Your task to perform on an android device: What's on my calendar tomorrow? Image 0: 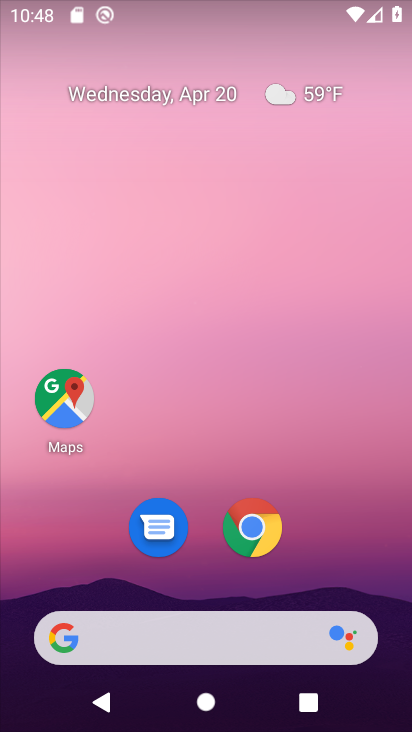
Step 0: drag from (370, 574) to (358, 133)
Your task to perform on an android device: What's on my calendar tomorrow? Image 1: 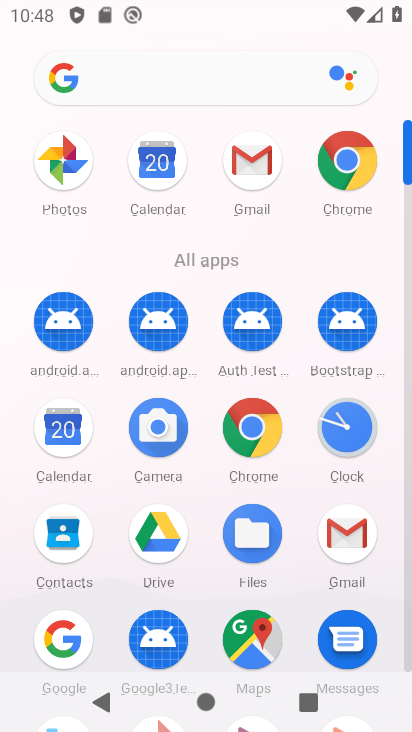
Step 1: drag from (286, 584) to (305, 259)
Your task to perform on an android device: What's on my calendar tomorrow? Image 2: 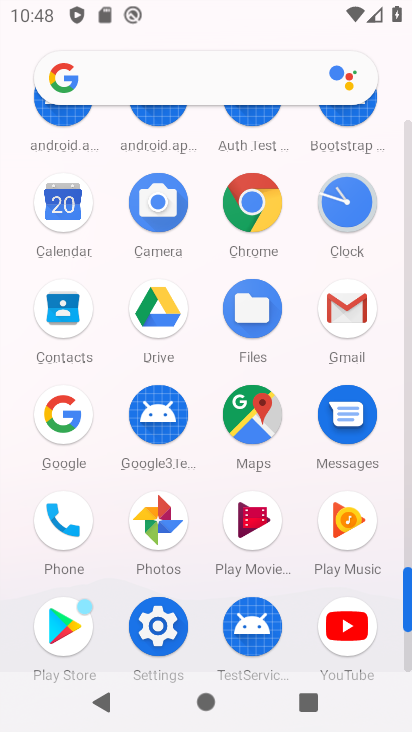
Step 2: click (57, 211)
Your task to perform on an android device: What's on my calendar tomorrow? Image 3: 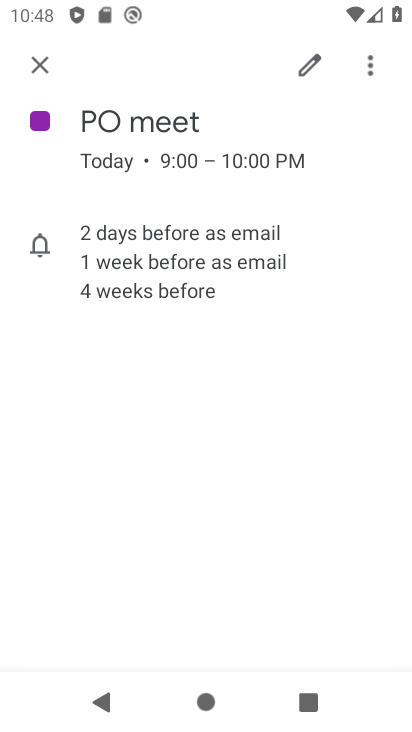
Step 3: click (42, 65)
Your task to perform on an android device: What's on my calendar tomorrow? Image 4: 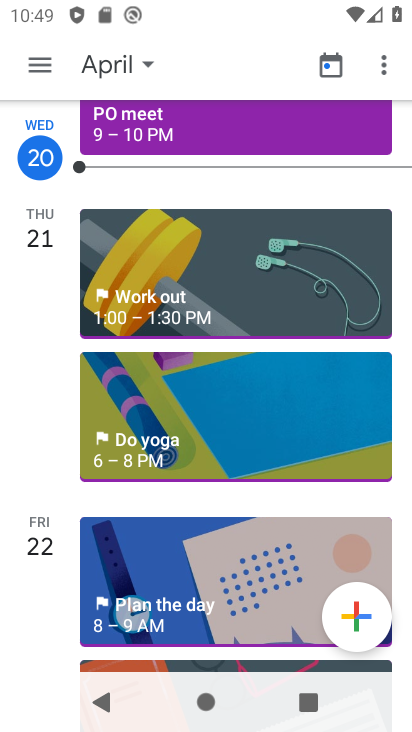
Step 4: click (108, 68)
Your task to perform on an android device: What's on my calendar tomorrow? Image 5: 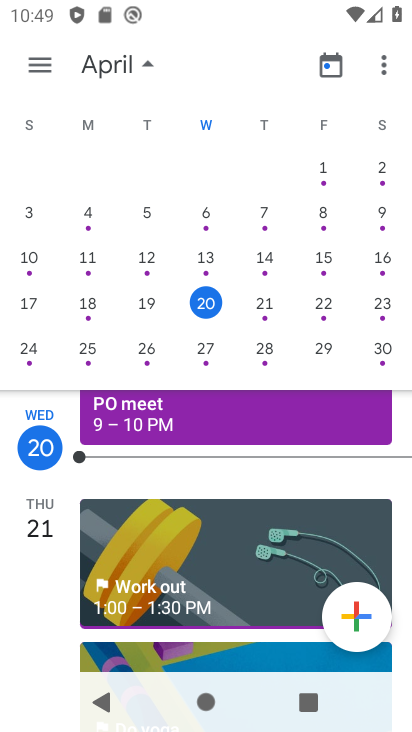
Step 5: click (272, 303)
Your task to perform on an android device: What's on my calendar tomorrow? Image 6: 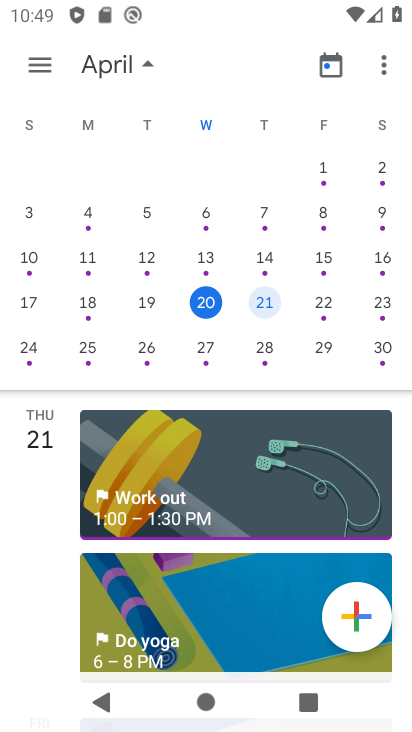
Step 6: task complete